Your task to perform on an android device: turn off priority inbox in the gmail app Image 0: 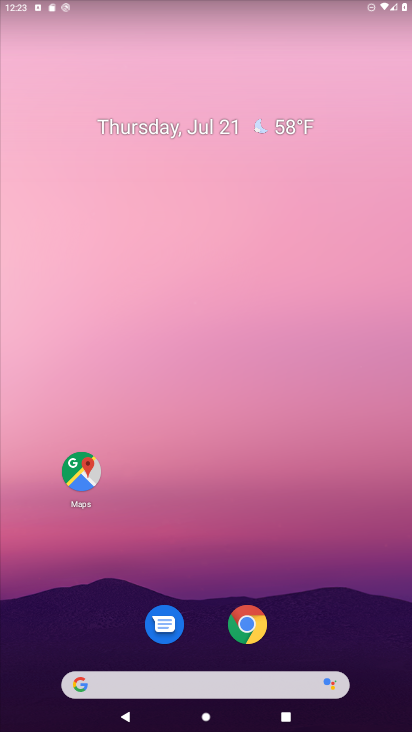
Step 0: drag from (213, 578) to (224, 170)
Your task to perform on an android device: turn off priority inbox in the gmail app Image 1: 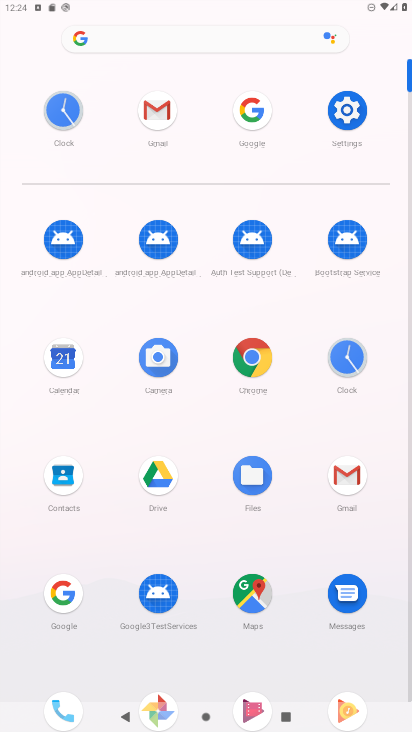
Step 1: click (163, 124)
Your task to perform on an android device: turn off priority inbox in the gmail app Image 2: 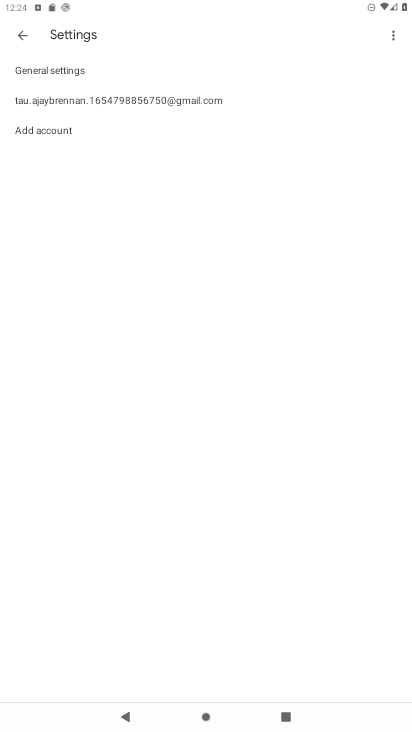
Step 2: click (30, 42)
Your task to perform on an android device: turn off priority inbox in the gmail app Image 3: 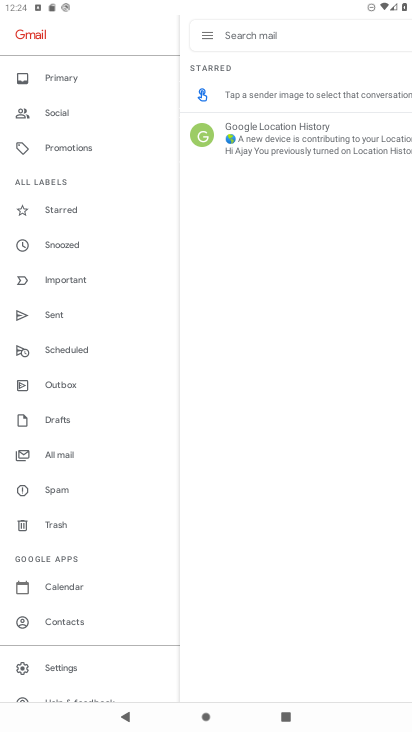
Step 3: click (68, 656)
Your task to perform on an android device: turn off priority inbox in the gmail app Image 4: 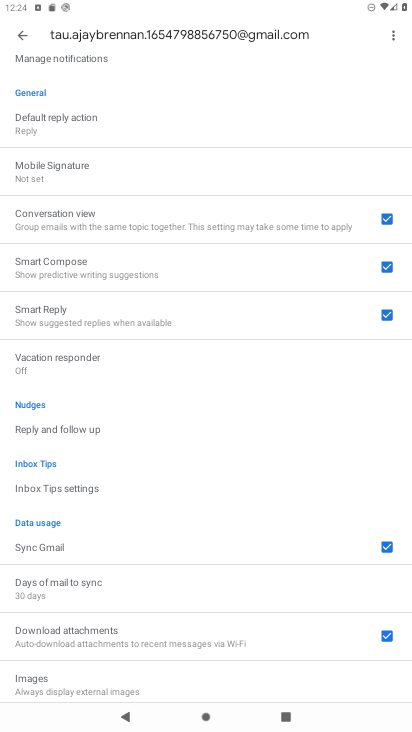
Step 4: drag from (140, 230) to (157, 595)
Your task to perform on an android device: turn off priority inbox in the gmail app Image 5: 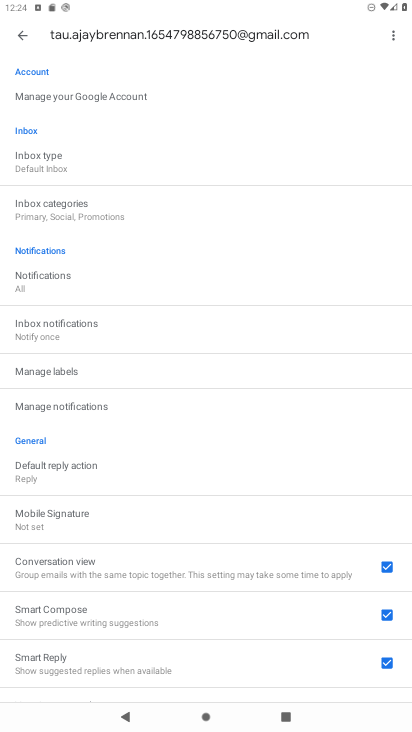
Step 5: click (93, 169)
Your task to perform on an android device: turn off priority inbox in the gmail app Image 6: 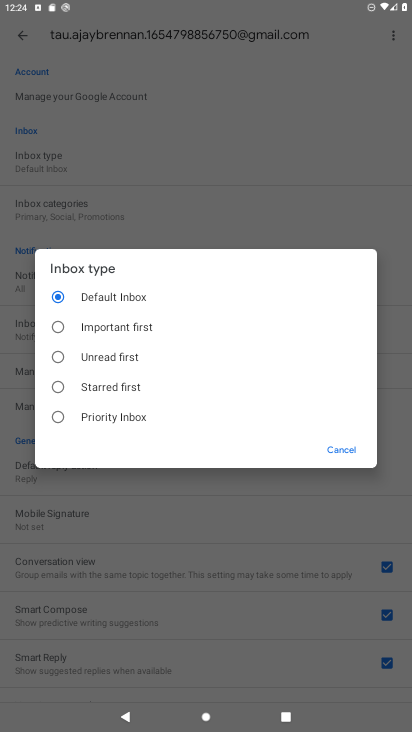
Step 6: task complete